Your task to perform on an android device: set default search engine in the chrome app Image 0: 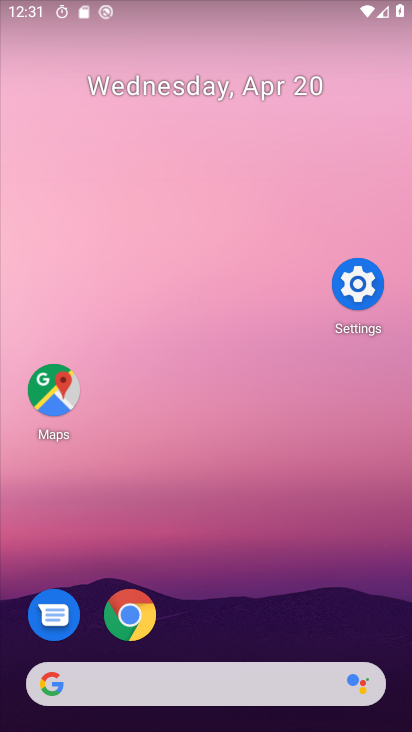
Step 0: click (131, 613)
Your task to perform on an android device: set default search engine in the chrome app Image 1: 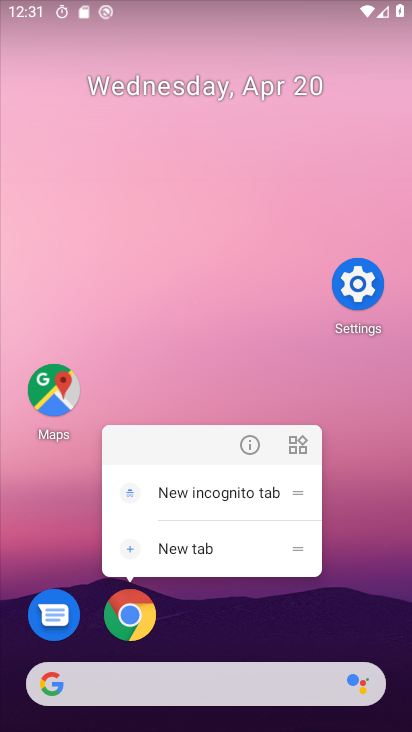
Step 1: click (248, 439)
Your task to perform on an android device: set default search engine in the chrome app Image 2: 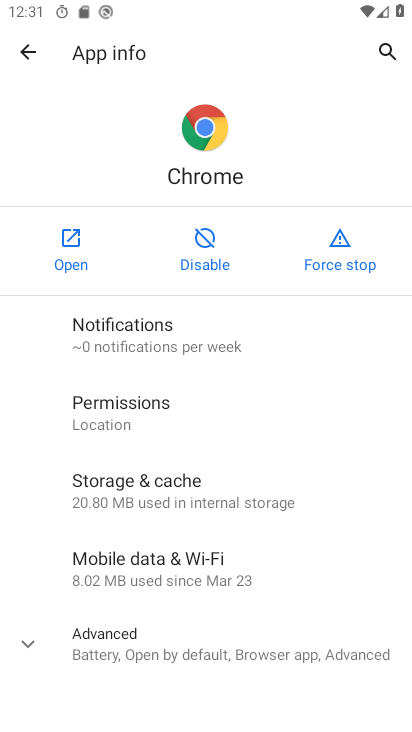
Step 2: click (79, 247)
Your task to perform on an android device: set default search engine in the chrome app Image 3: 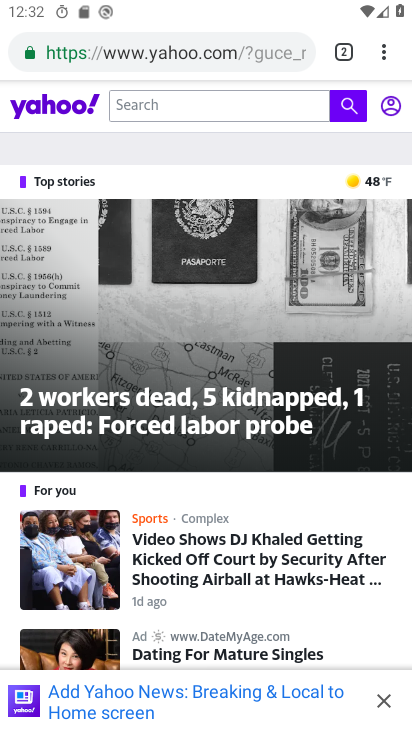
Step 3: drag from (387, 64) to (236, 645)
Your task to perform on an android device: set default search engine in the chrome app Image 4: 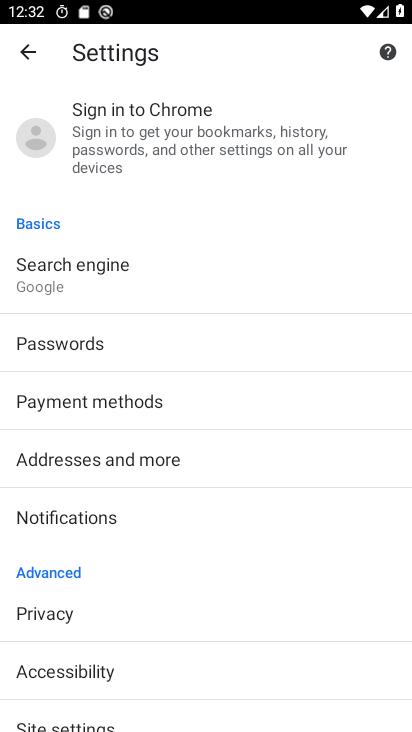
Step 4: click (131, 282)
Your task to perform on an android device: set default search engine in the chrome app Image 5: 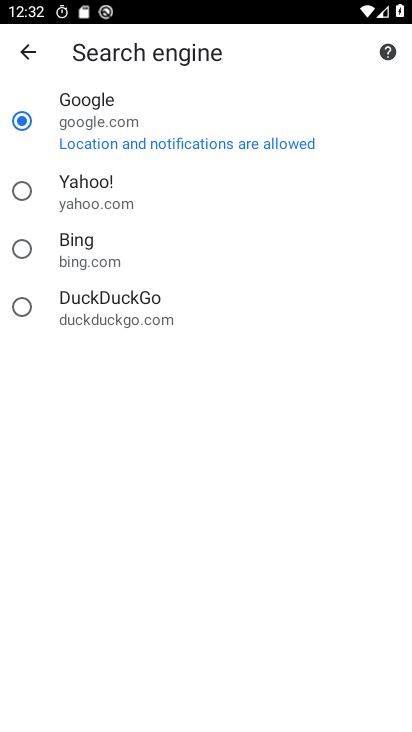
Step 5: task complete